Your task to perform on an android device: move a message to another label in the gmail app Image 0: 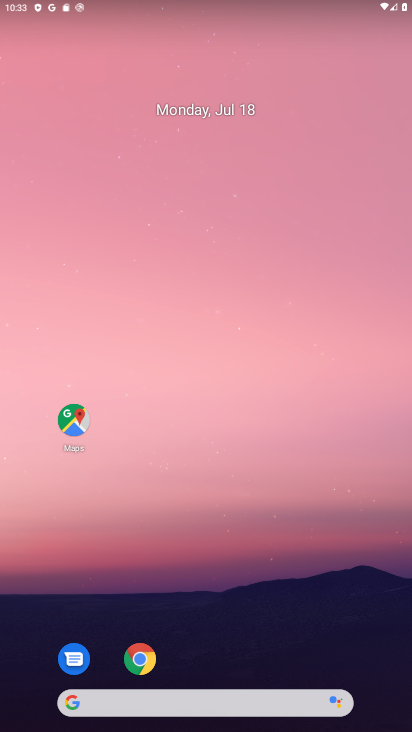
Step 0: press home button
Your task to perform on an android device: move a message to another label in the gmail app Image 1: 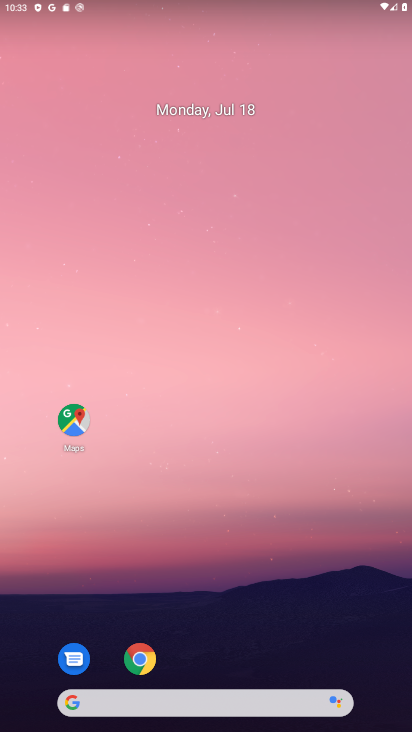
Step 1: drag from (289, 617) to (229, 11)
Your task to perform on an android device: move a message to another label in the gmail app Image 2: 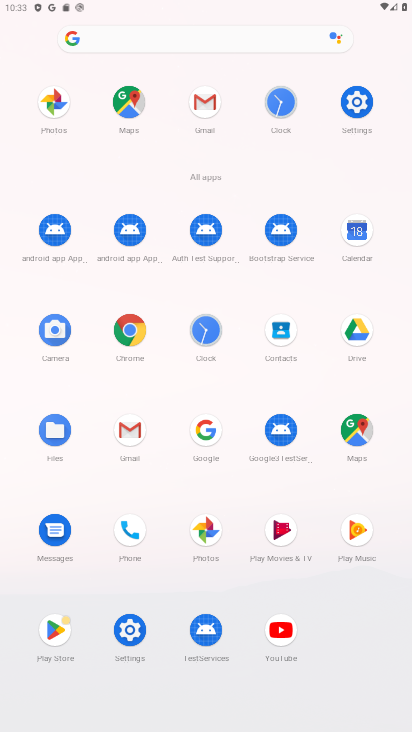
Step 2: click (127, 447)
Your task to perform on an android device: move a message to another label in the gmail app Image 3: 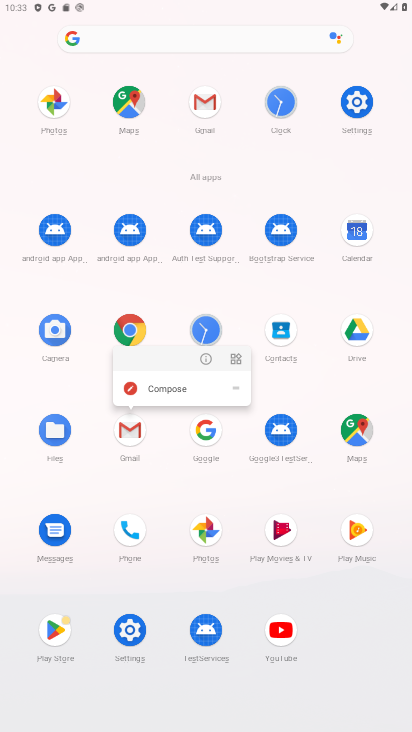
Step 3: click (125, 458)
Your task to perform on an android device: move a message to another label in the gmail app Image 4: 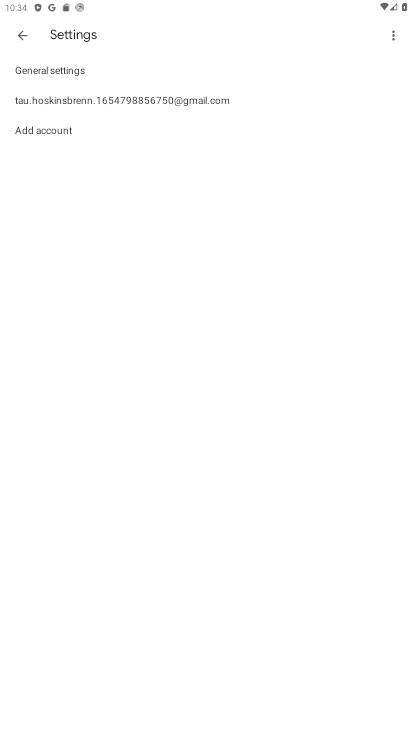
Step 4: click (13, 36)
Your task to perform on an android device: move a message to another label in the gmail app Image 5: 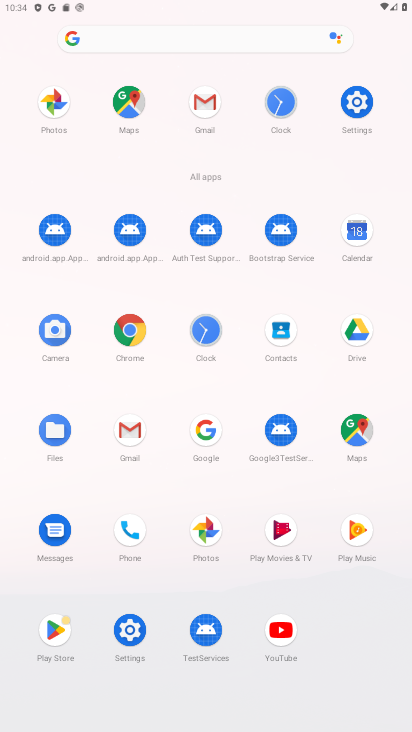
Step 5: click (197, 109)
Your task to perform on an android device: move a message to another label in the gmail app Image 6: 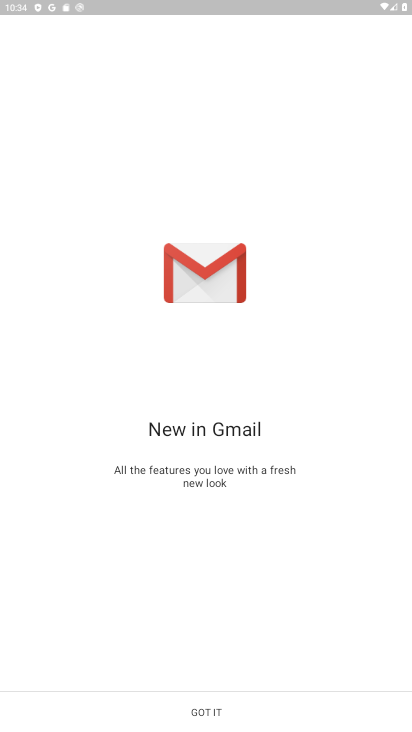
Step 6: click (211, 703)
Your task to perform on an android device: move a message to another label in the gmail app Image 7: 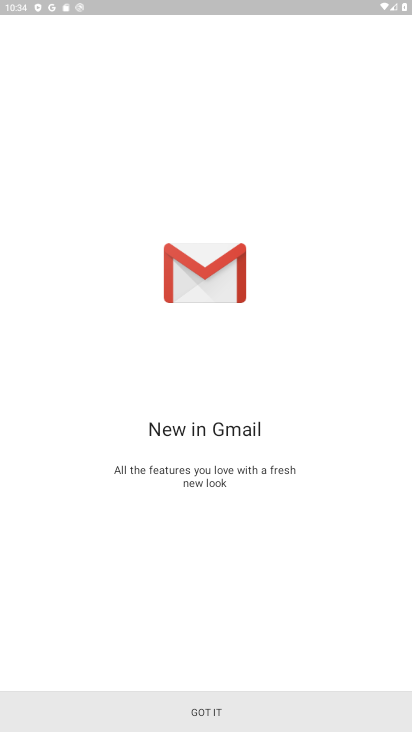
Step 7: click (211, 703)
Your task to perform on an android device: move a message to another label in the gmail app Image 8: 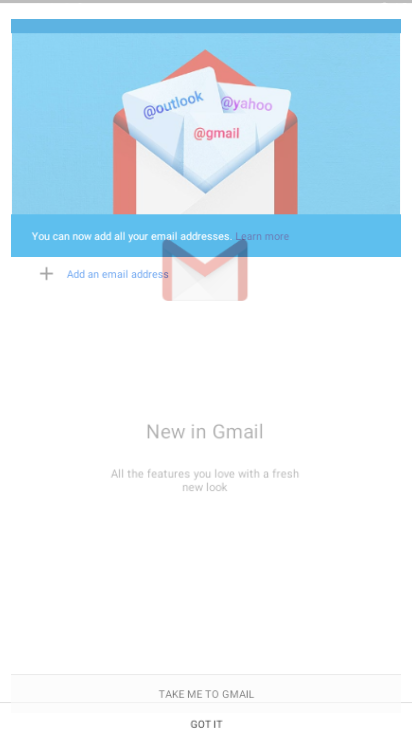
Step 8: click (211, 703)
Your task to perform on an android device: move a message to another label in the gmail app Image 9: 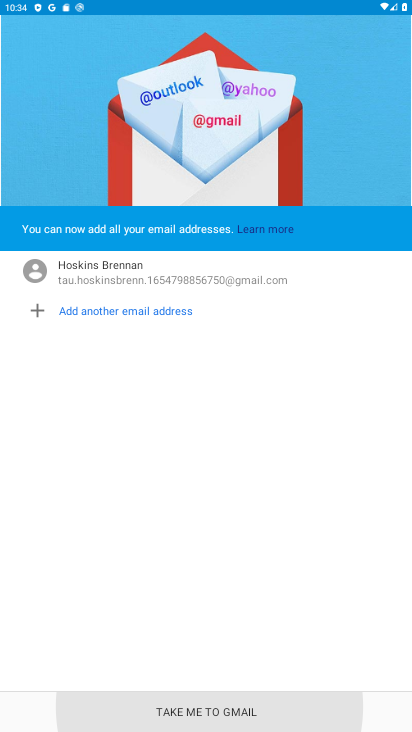
Step 9: click (211, 703)
Your task to perform on an android device: move a message to another label in the gmail app Image 10: 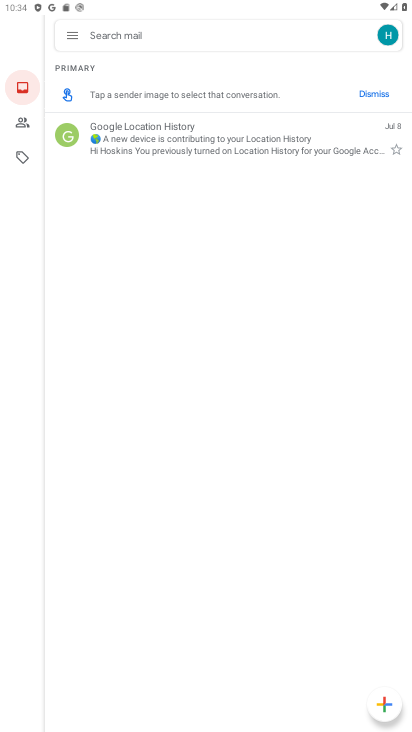
Step 10: click (382, 28)
Your task to perform on an android device: move a message to another label in the gmail app Image 11: 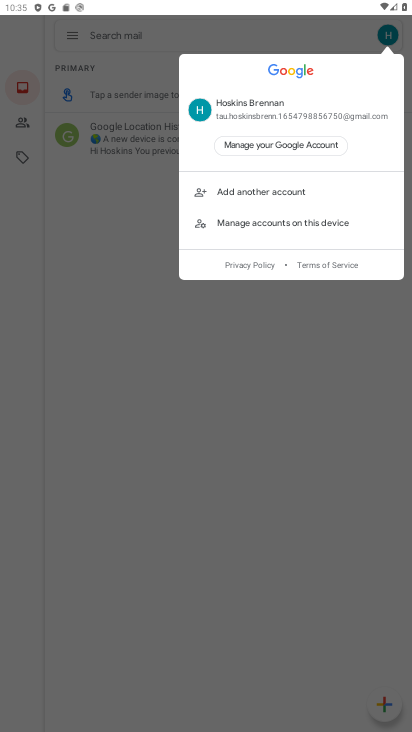
Step 11: click (290, 310)
Your task to perform on an android device: move a message to another label in the gmail app Image 12: 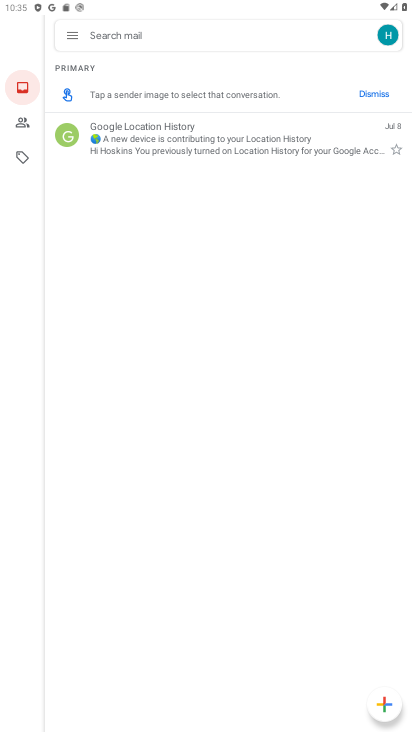
Step 12: click (67, 134)
Your task to perform on an android device: move a message to another label in the gmail app Image 13: 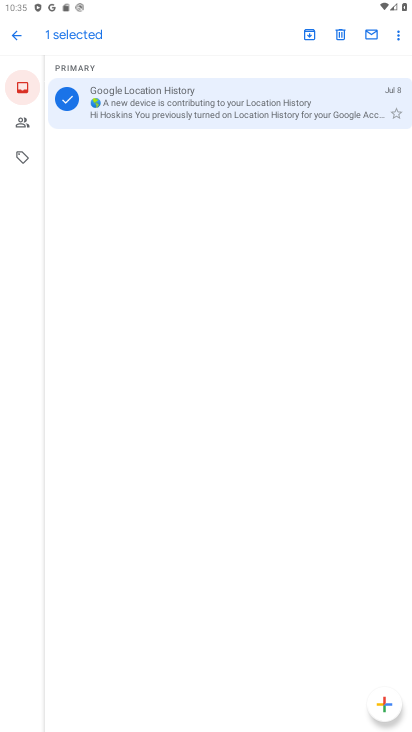
Step 13: click (401, 34)
Your task to perform on an android device: move a message to another label in the gmail app Image 14: 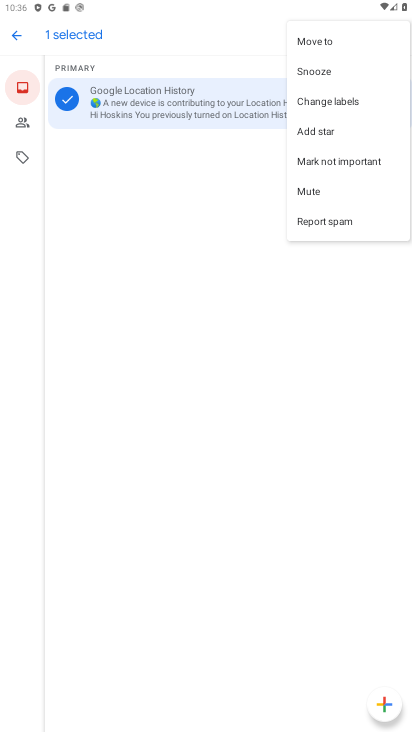
Step 14: task complete